Your task to perform on an android device: Go to ESPN.com Image 0: 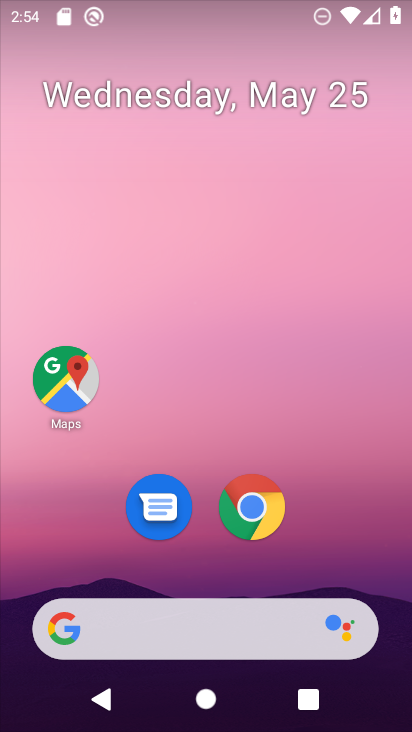
Step 0: click (253, 519)
Your task to perform on an android device: Go to ESPN.com Image 1: 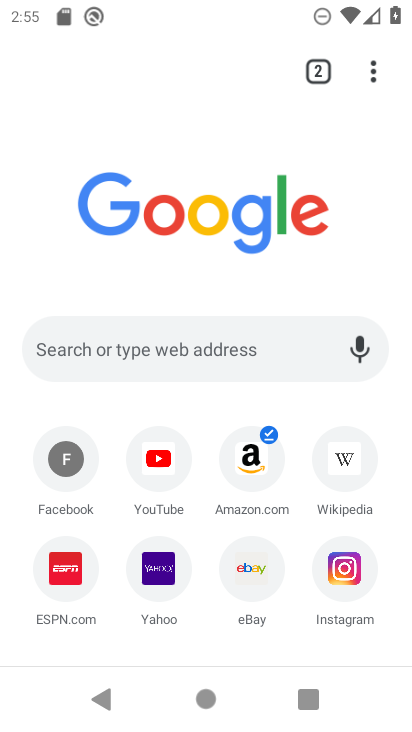
Step 1: click (76, 591)
Your task to perform on an android device: Go to ESPN.com Image 2: 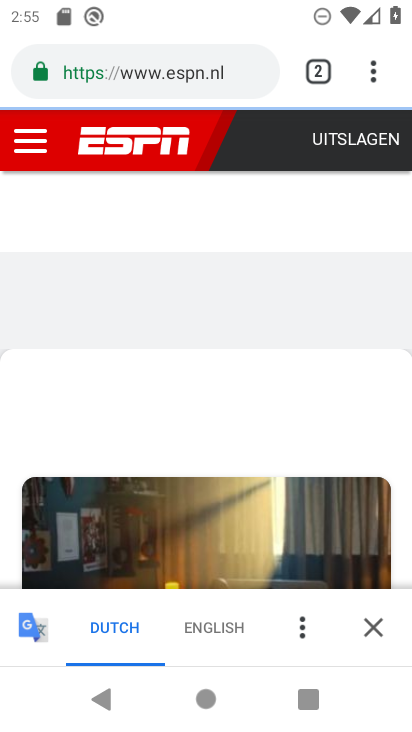
Step 2: task complete